Your task to perform on an android device: turn on bluetooth scan Image 0: 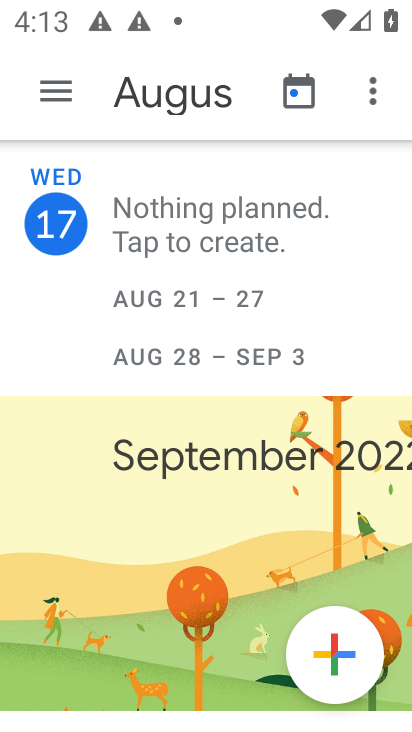
Step 0: press home button
Your task to perform on an android device: turn on bluetooth scan Image 1: 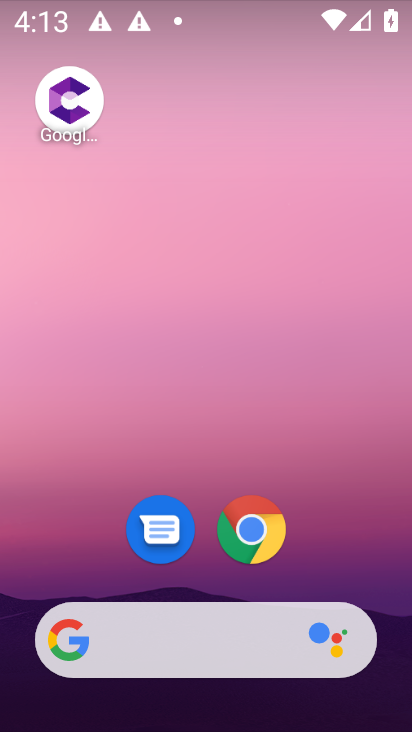
Step 1: drag from (203, 571) to (199, 0)
Your task to perform on an android device: turn on bluetooth scan Image 2: 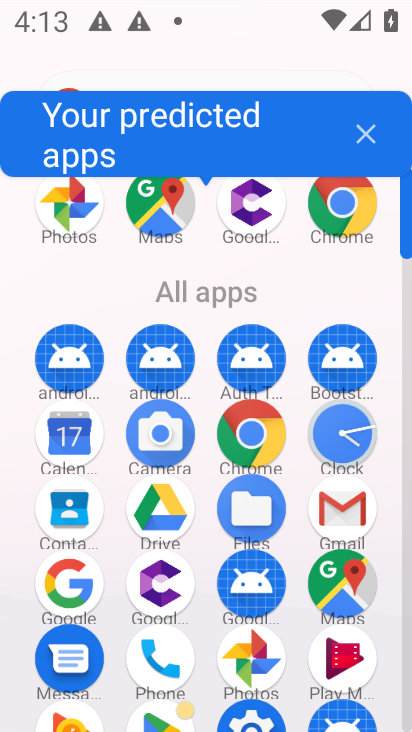
Step 2: drag from (213, 608) to (228, 102)
Your task to perform on an android device: turn on bluetooth scan Image 3: 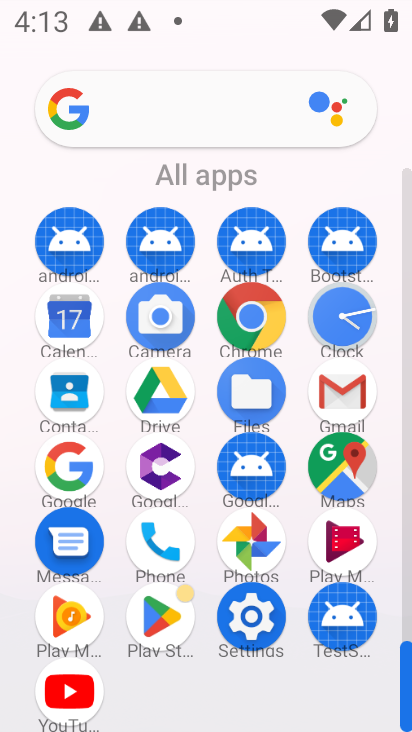
Step 3: click (256, 623)
Your task to perform on an android device: turn on bluetooth scan Image 4: 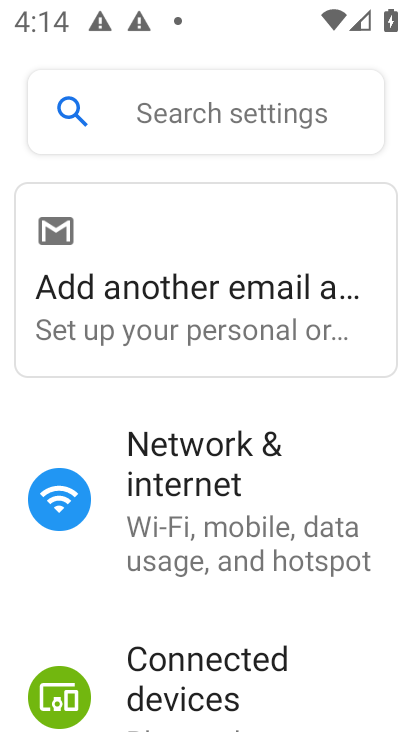
Step 4: drag from (200, 674) to (221, 178)
Your task to perform on an android device: turn on bluetooth scan Image 5: 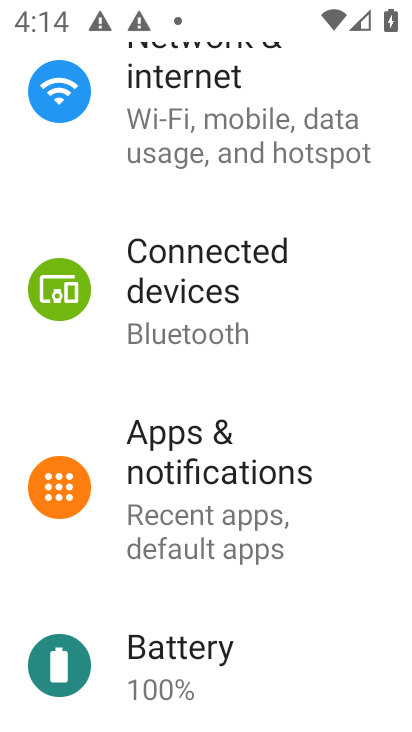
Step 5: drag from (190, 526) to (237, 99)
Your task to perform on an android device: turn on bluetooth scan Image 6: 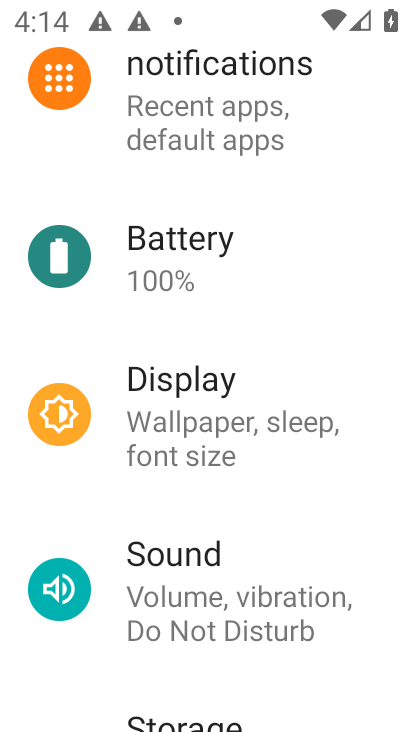
Step 6: drag from (211, 584) to (226, 143)
Your task to perform on an android device: turn on bluetooth scan Image 7: 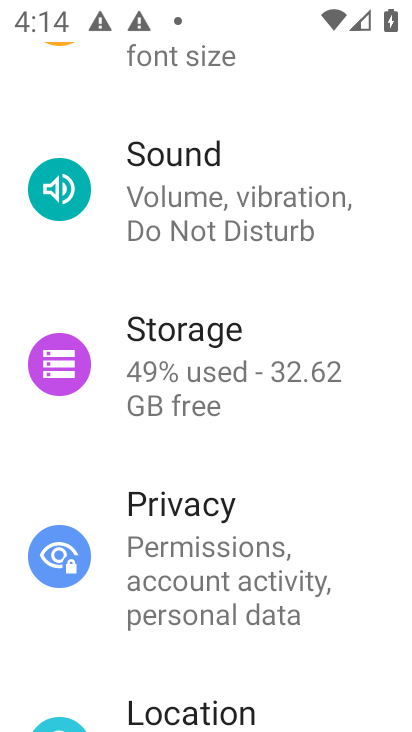
Step 7: drag from (203, 585) to (217, 145)
Your task to perform on an android device: turn on bluetooth scan Image 8: 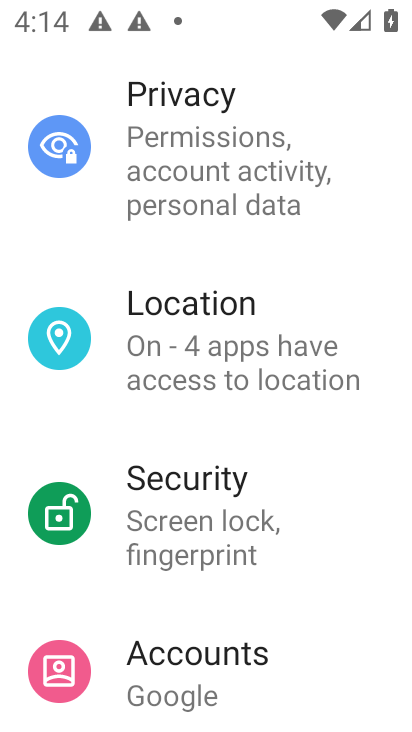
Step 8: click (191, 341)
Your task to perform on an android device: turn on bluetooth scan Image 9: 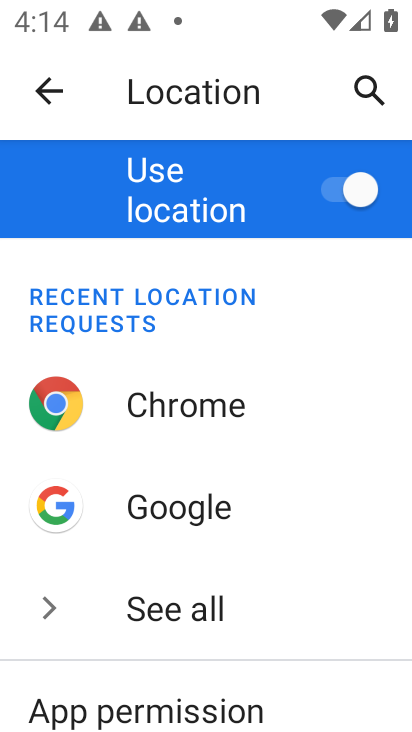
Step 9: drag from (165, 621) to (213, 197)
Your task to perform on an android device: turn on bluetooth scan Image 10: 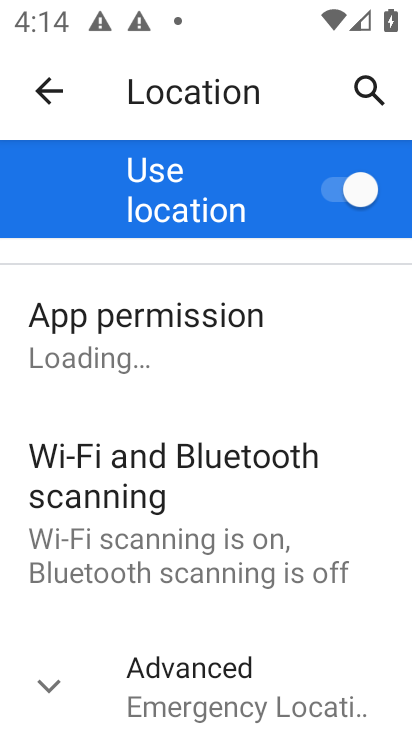
Step 10: click (168, 504)
Your task to perform on an android device: turn on bluetooth scan Image 11: 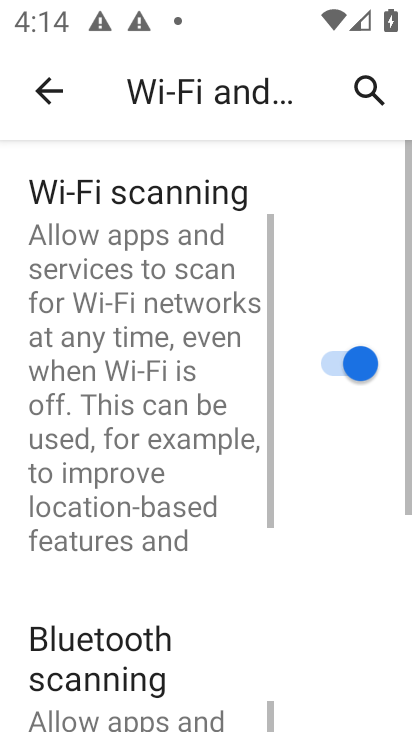
Step 11: drag from (155, 573) to (186, 294)
Your task to perform on an android device: turn on bluetooth scan Image 12: 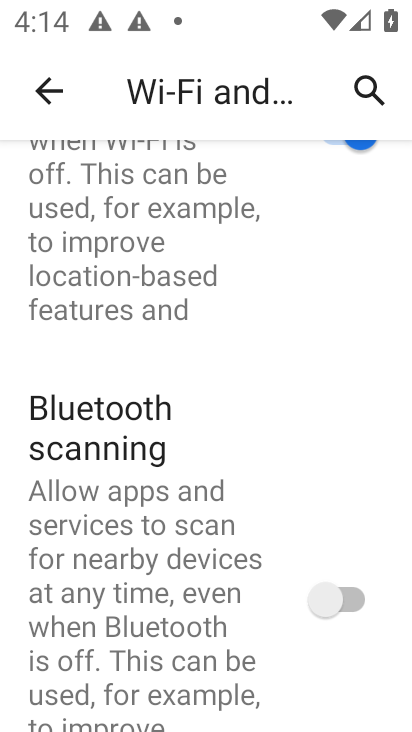
Step 12: click (360, 592)
Your task to perform on an android device: turn on bluetooth scan Image 13: 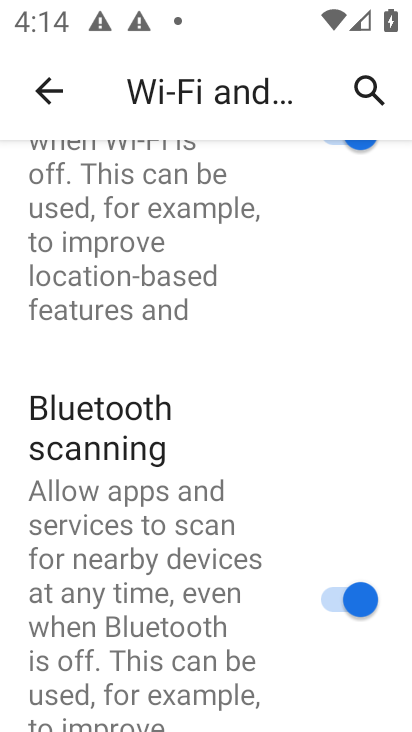
Step 13: task complete